Your task to perform on an android device: Go to calendar. Show me events next week Image 0: 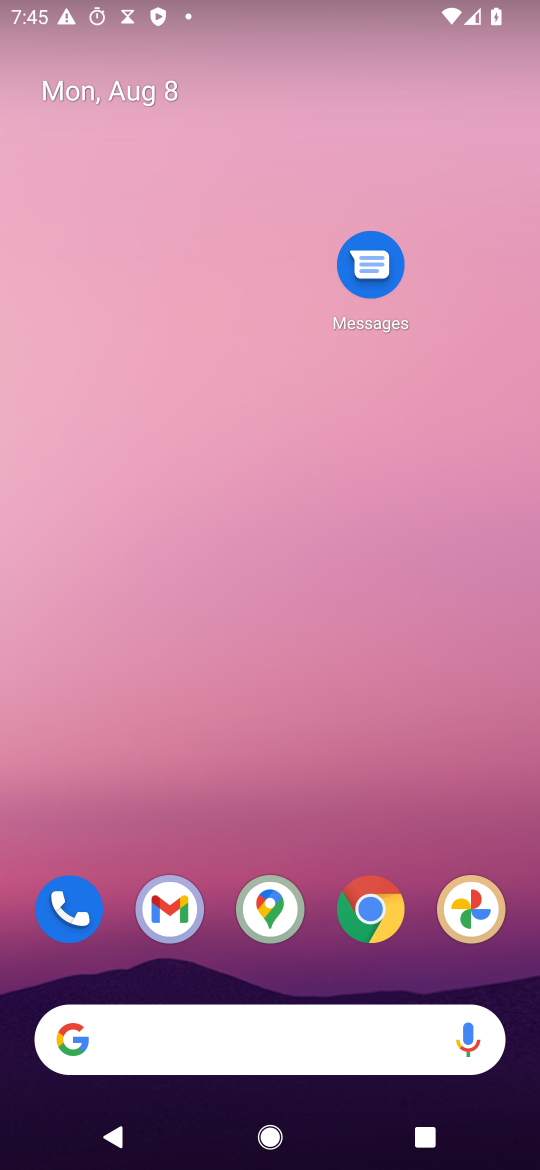
Step 0: drag from (263, 874) to (369, 379)
Your task to perform on an android device: Go to calendar. Show me events next week Image 1: 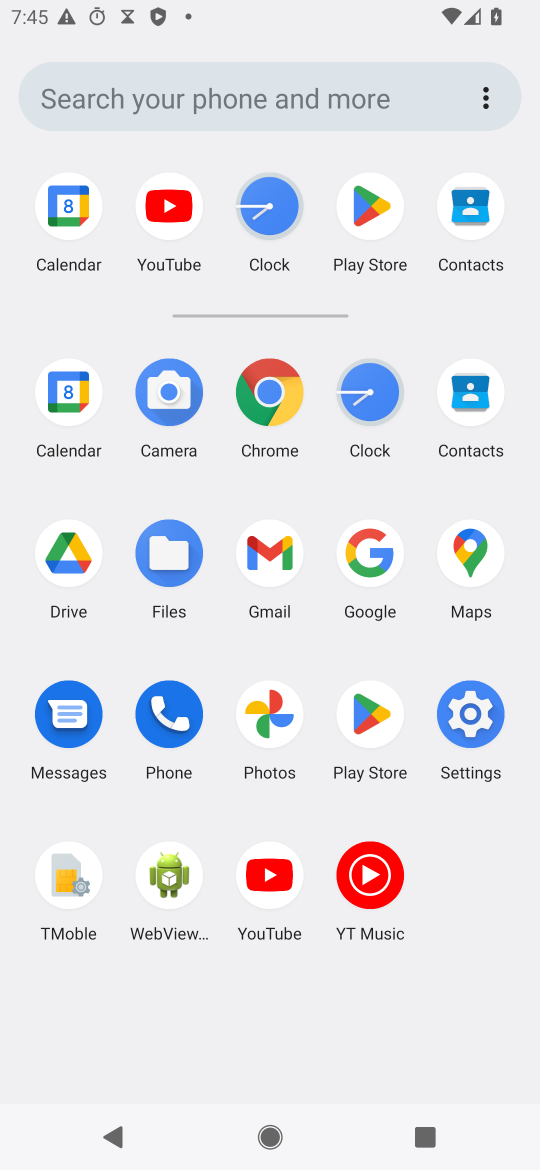
Step 1: click (68, 401)
Your task to perform on an android device: Go to calendar. Show me events next week Image 2: 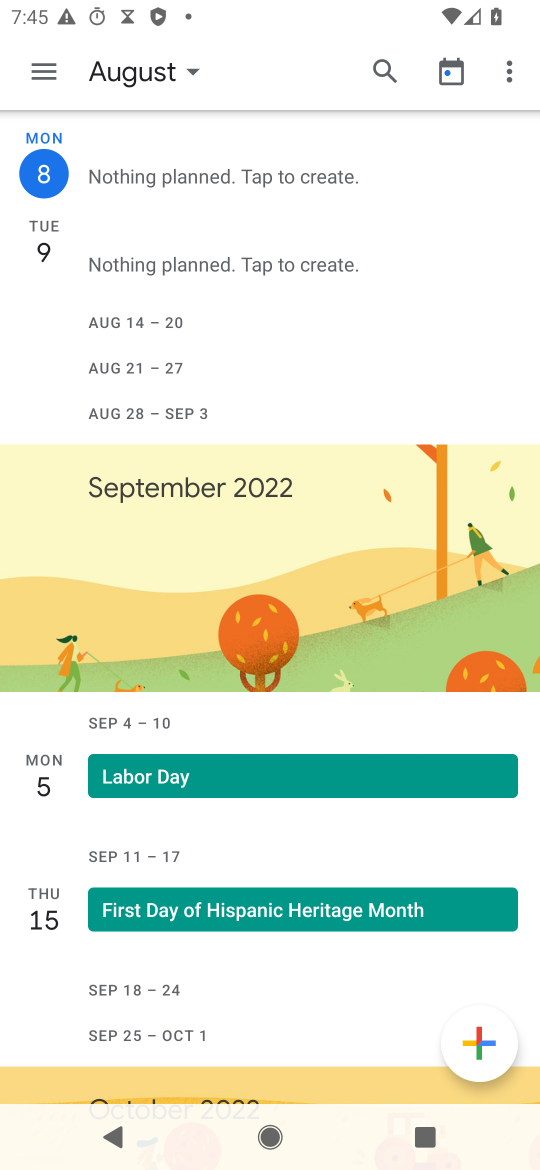
Step 2: click (136, 70)
Your task to perform on an android device: Go to calendar. Show me events next week Image 3: 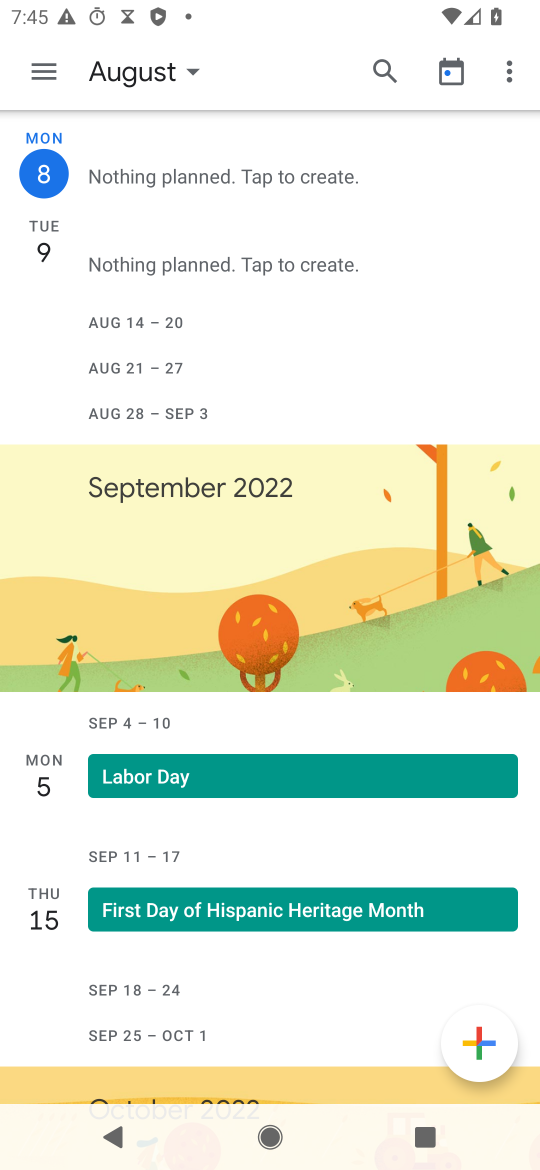
Step 3: click (122, 86)
Your task to perform on an android device: Go to calendar. Show me events next week Image 4: 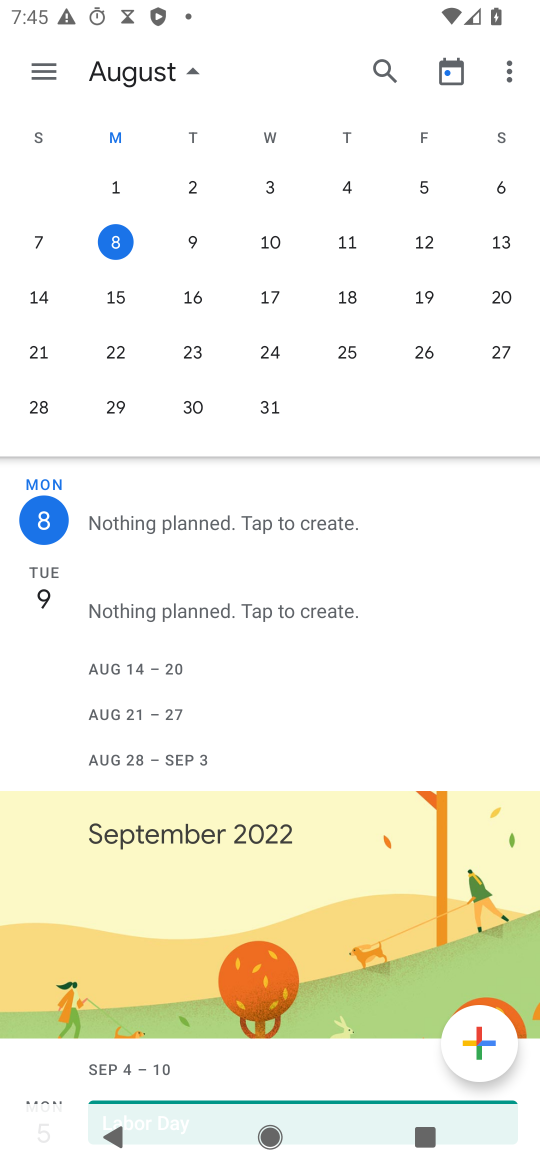
Step 4: click (40, 297)
Your task to perform on an android device: Go to calendar. Show me events next week Image 5: 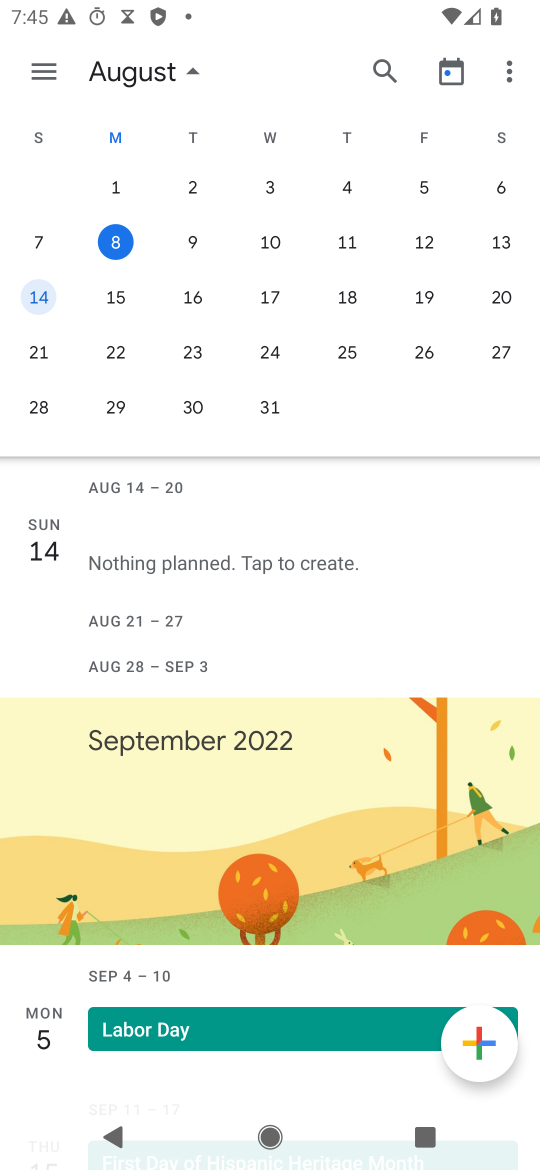
Step 5: click (48, 70)
Your task to perform on an android device: Go to calendar. Show me events next week Image 6: 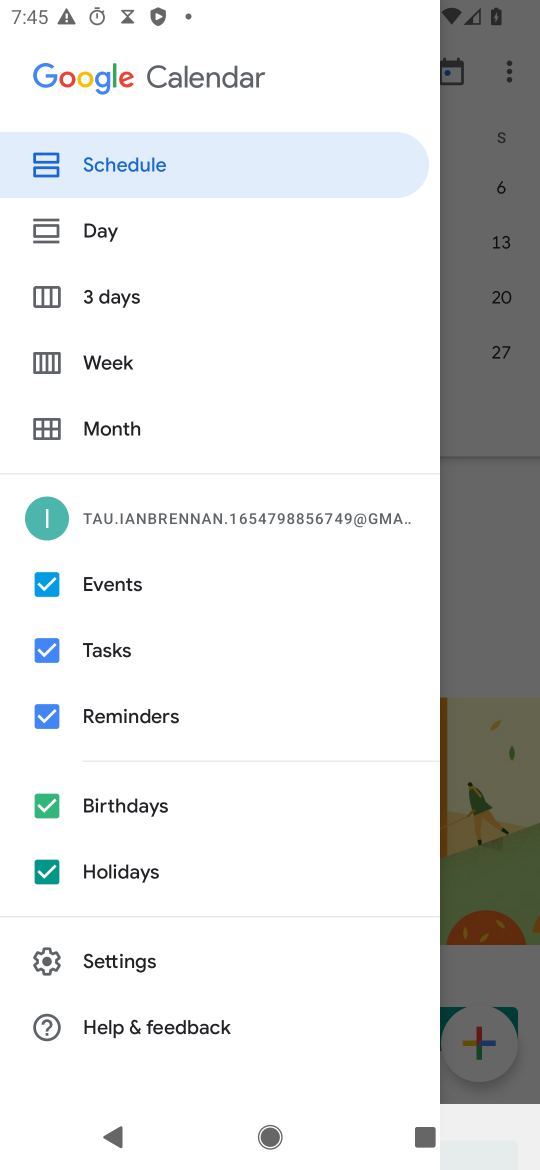
Step 6: click (118, 364)
Your task to perform on an android device: Go to calendar. Show me events next week Image 7: 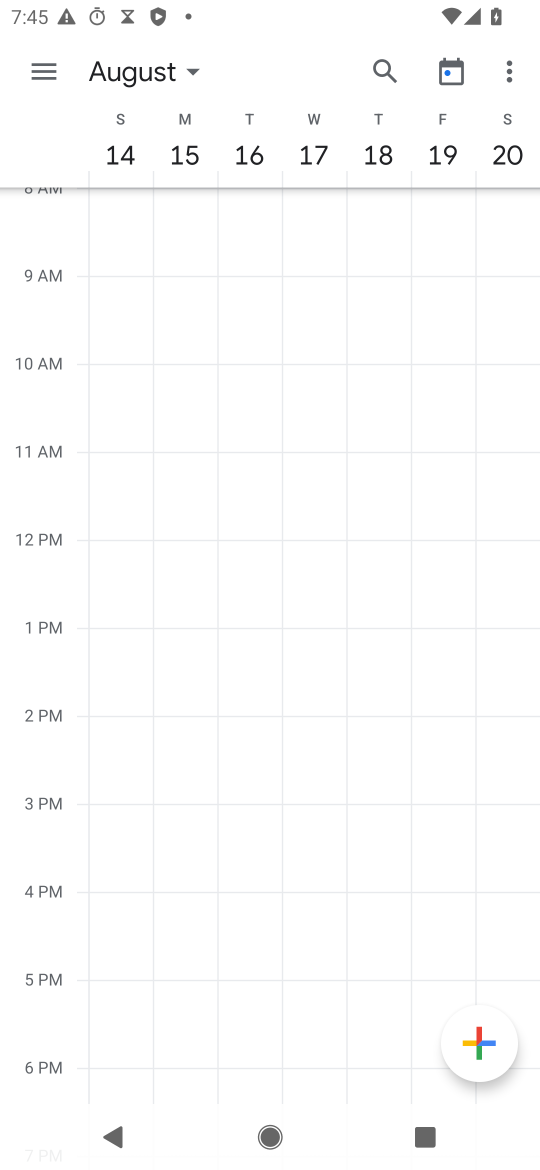
Step 7: click (39, 71)
Your task to perform on an android device: Go to calendar. Show me events next week Image 8: 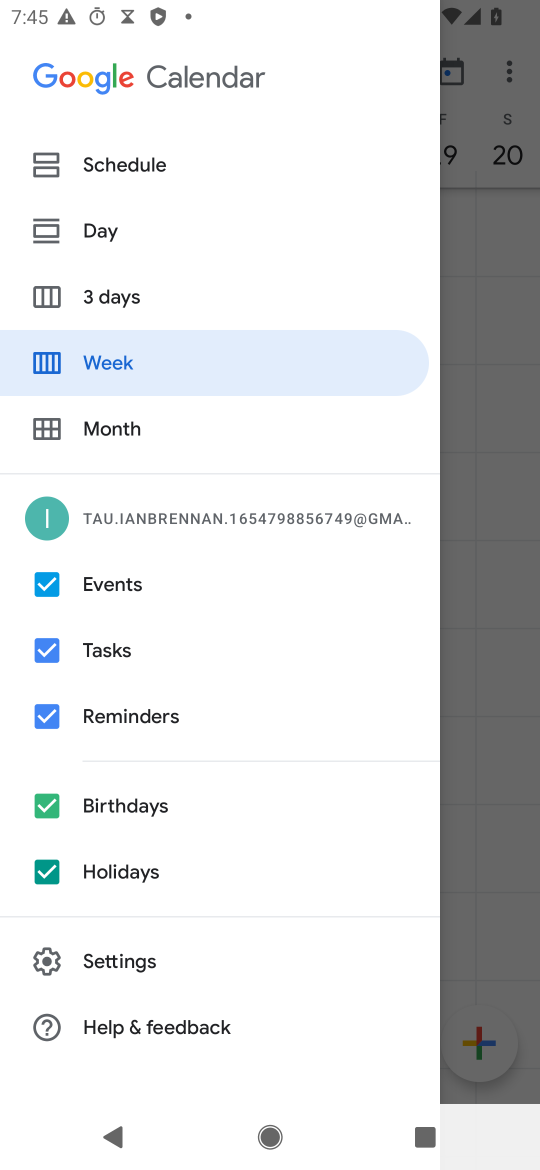
Step 8: click (117, 153)
Your task to perform on an android device: Go to calendar. Show me events next week Image 9: 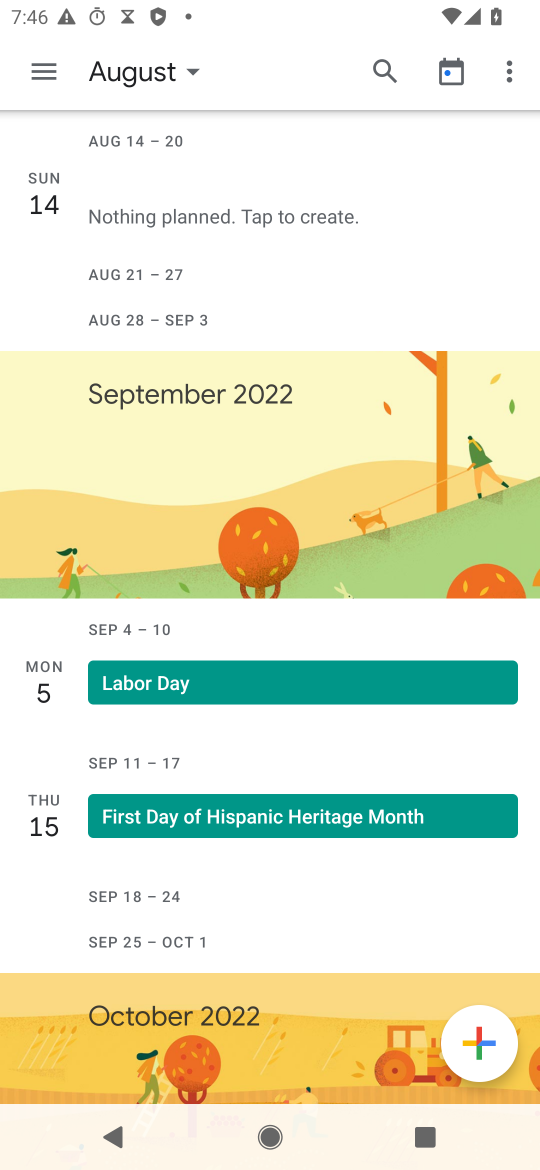
Step 9: task complete